Your task to perform on an android device: check out phone information Image 0: 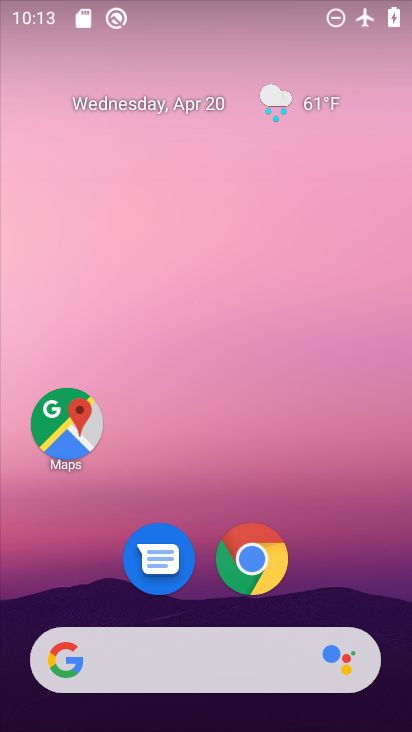
Step 0: drag from (383, 609) to (313, 278)
Your task to perform on an android device: check out phone information Image 1: 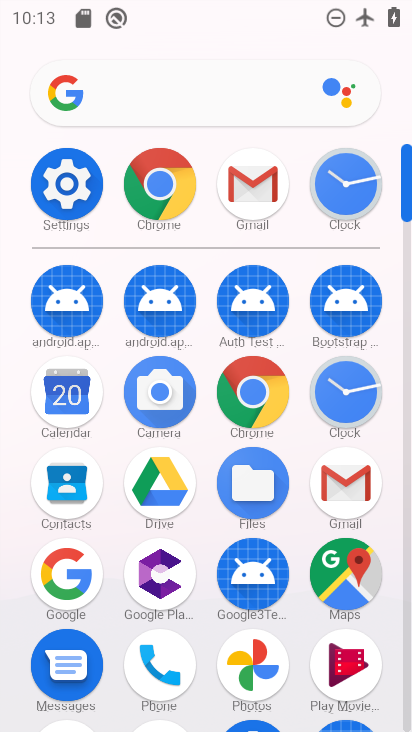
Step 1: click (409, 699)
Your task to perform on an android device: check out phone information Image 2: 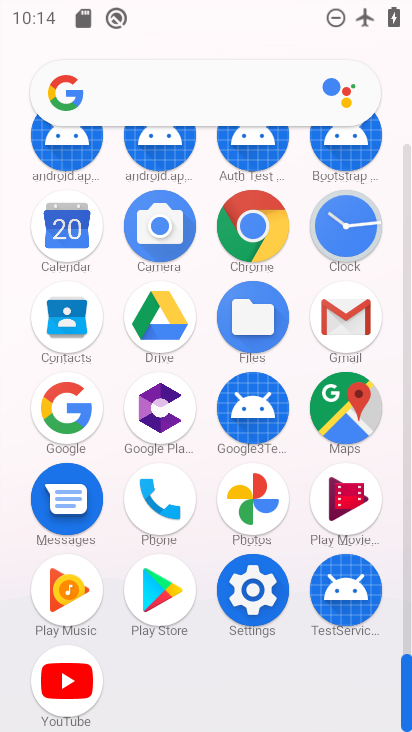
Step 2: click (254, 589)
Your task to perform on an android device: check out phone information Image 3: 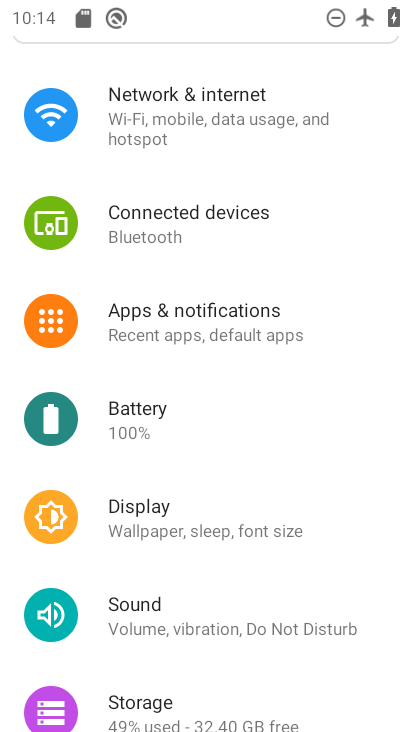
Step 3: drag from (338, 648) to (336, 498)
Your task to perform on an android device: check out phone information Image 4: 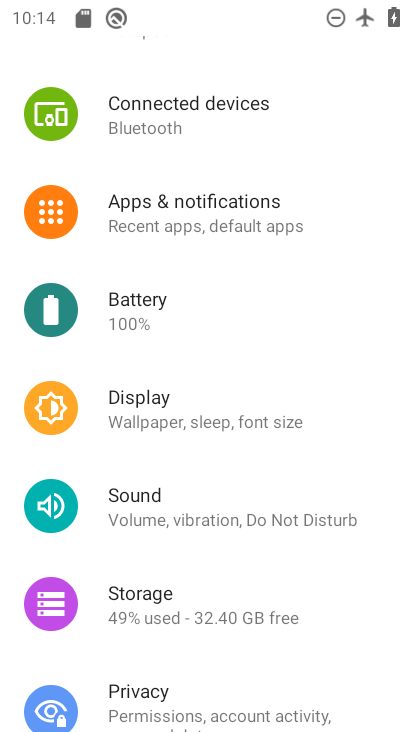
Step 4: drag from (317, 614) to (333, 487)
Your task to perform on an android device: check out phone information Image 5: 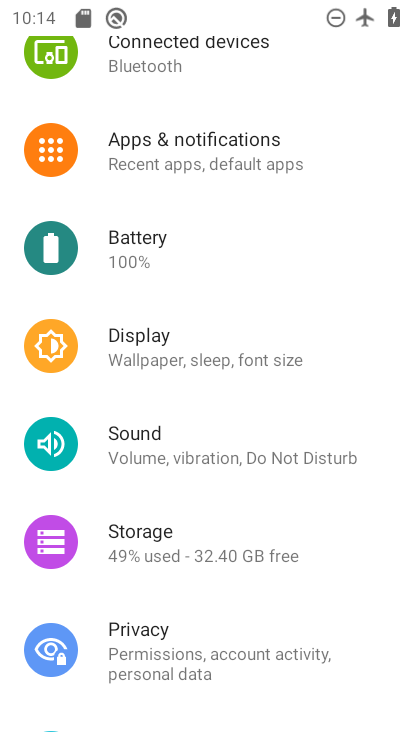
Step 5: drag from (315, 619) to (341, 438)
Your task to perform on an android device: check out phone information Image 6: 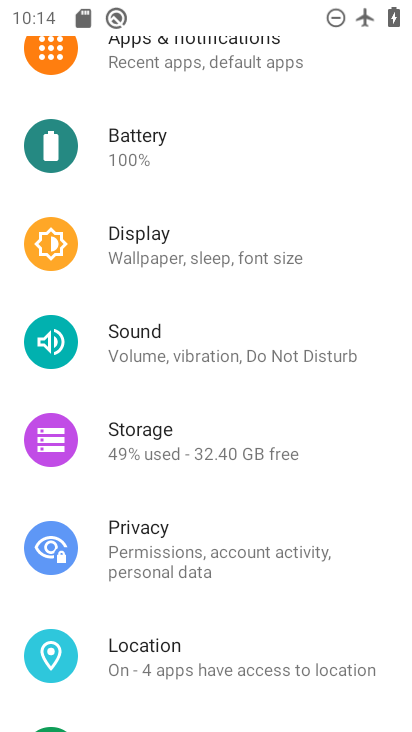
Step 6: drag from (331, 591) to (342, 408)
Your task to perform on an android device: check out phone information Image 7: 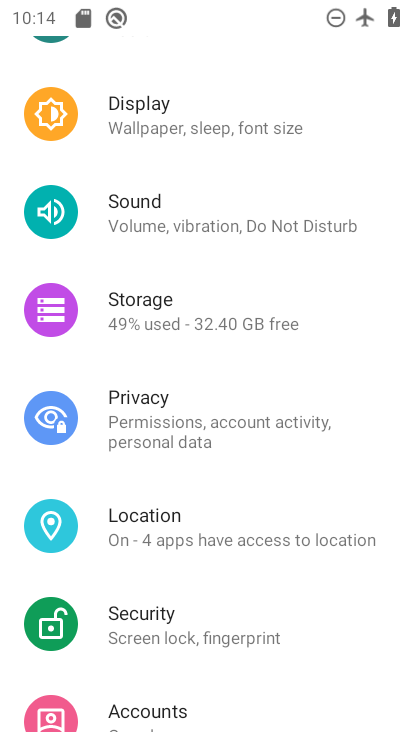
Step 7: drag from (316, 606) to (318, 395)
Your task to perform on an android device: check out phone information Image 8: 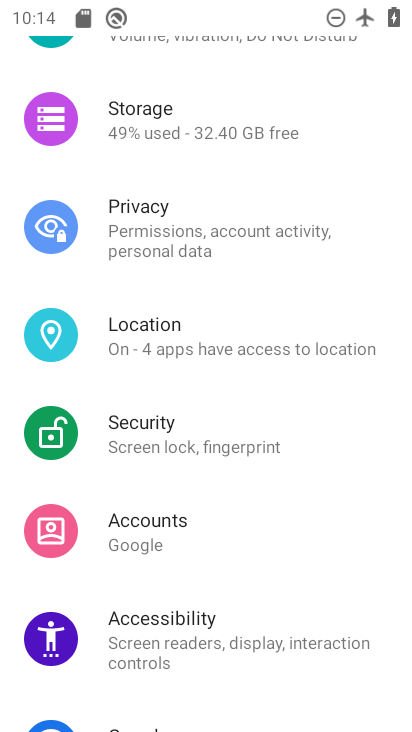
Step 8: drag from (291, 570) to (314, 324)
Your task to perform on an android device: check out phone information Image 9: 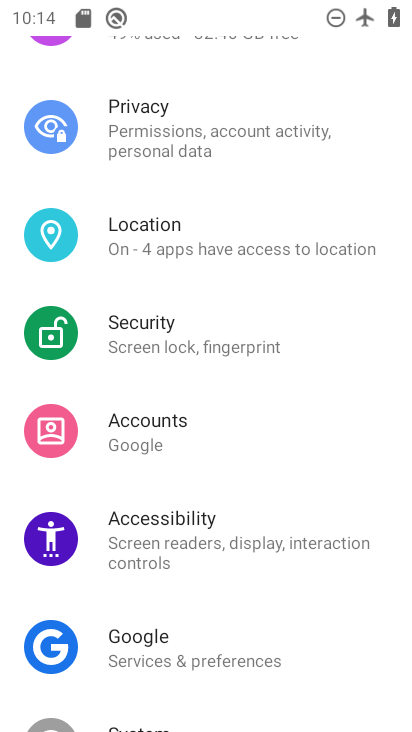
Step 9: drag from (263, 622) to (274, 456)
Your task to perform on an android device: check out phone information Image 10: 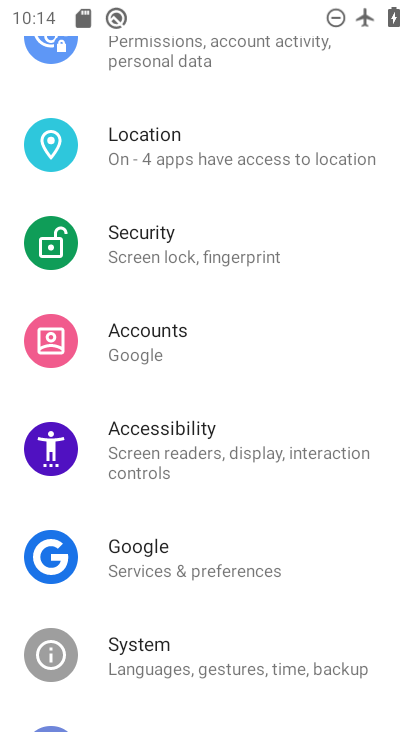
Step 10: drag from (251, 641) to (286, 358)
Your task to perform on an android device: check out phone information Image 11: 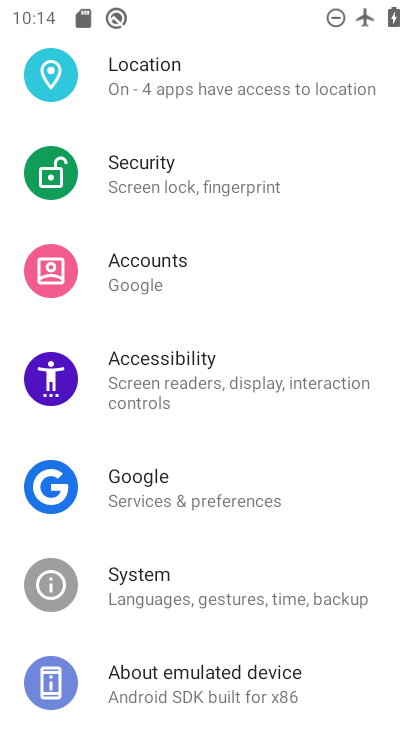
Step 11: click (136, 686)
Your task to perform on an android device: check out phone information Image 12: 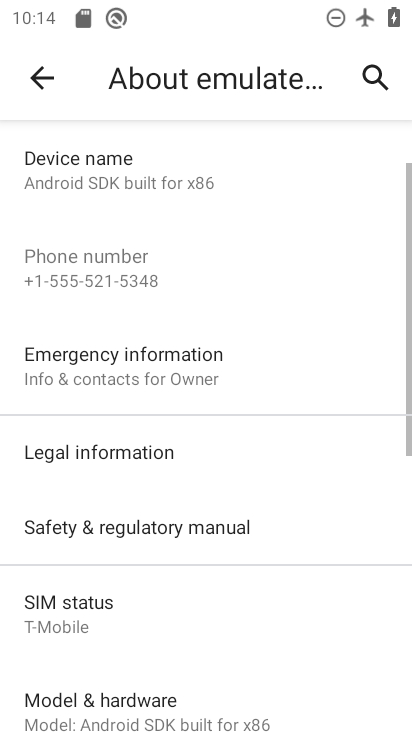
Step 12: task complete